Your task to perform on an android device: Open a new Chrome incognito window Image 0: 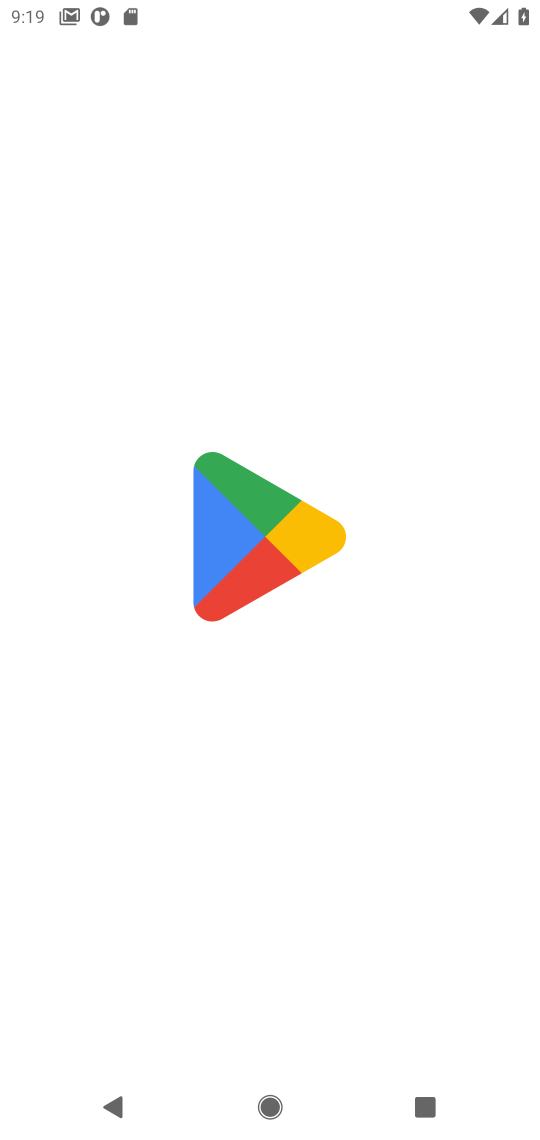
Step 0: press home button
Your task to perform on an android device: Open a new Chrome incognito window Image 1: 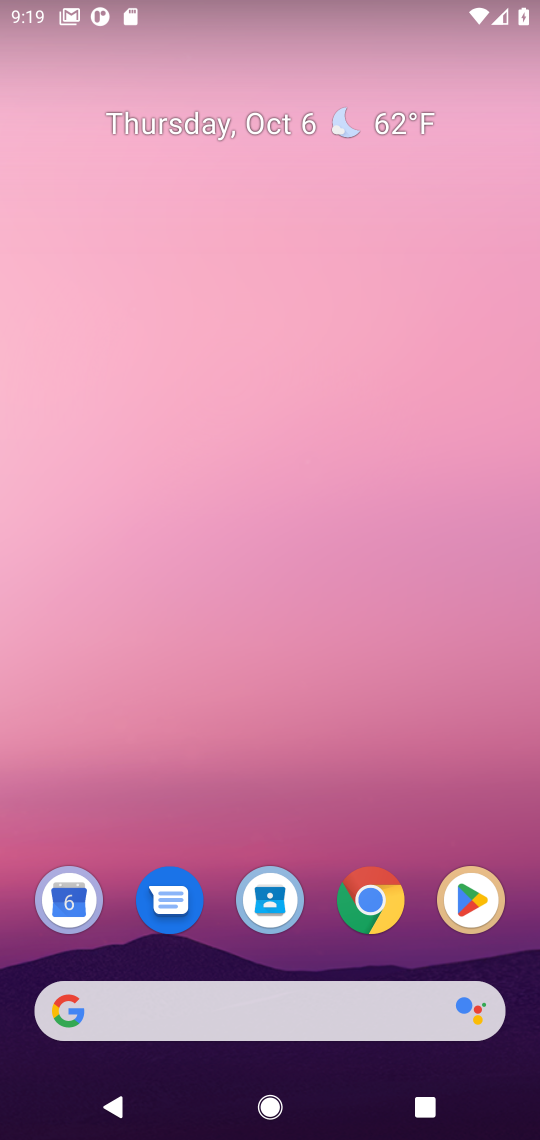
Step 1: drag from (505, 753) to (450, 75)
Your task to perform on an android device: Open a new Chrome incognito window Image 2: 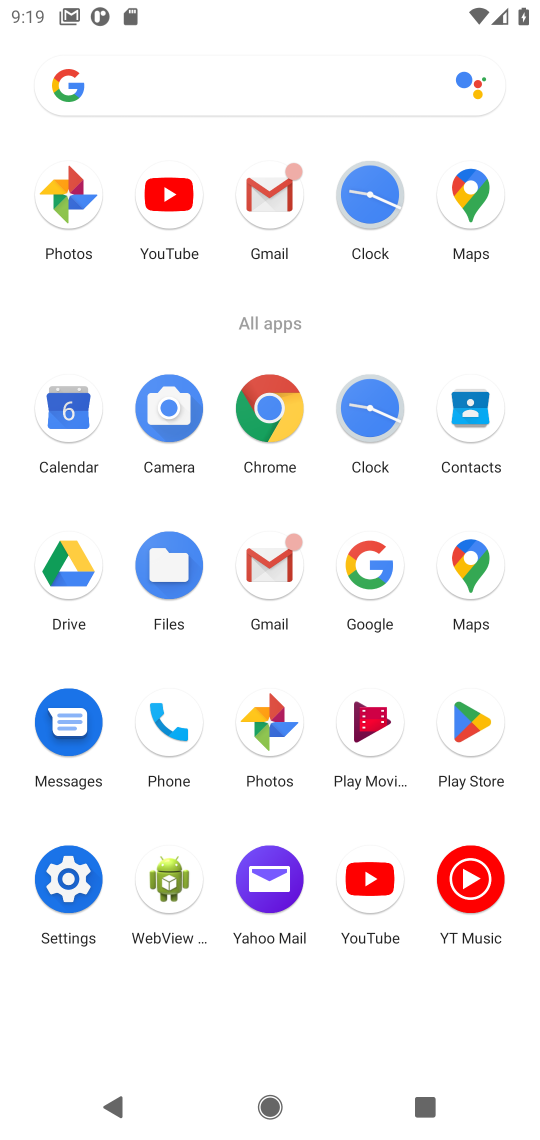
Step 2: click (265, 419)
Your task to perform on an android device: Open a new Chrome incognito window Image 3: 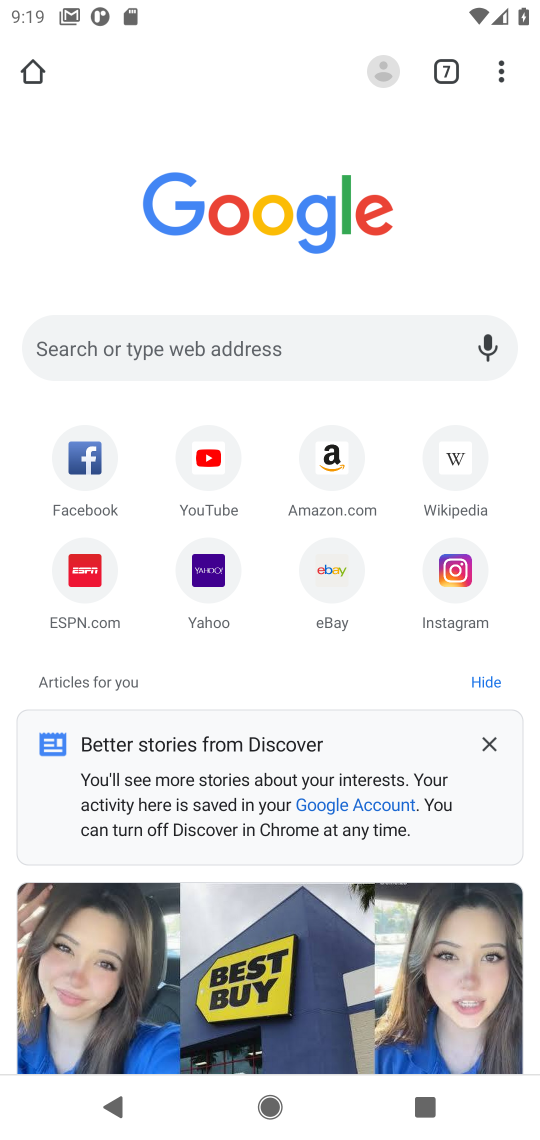
Step 3: click (504, 71)
Your task to perform on an android device: Open a new Chrome incognito window Image 4: 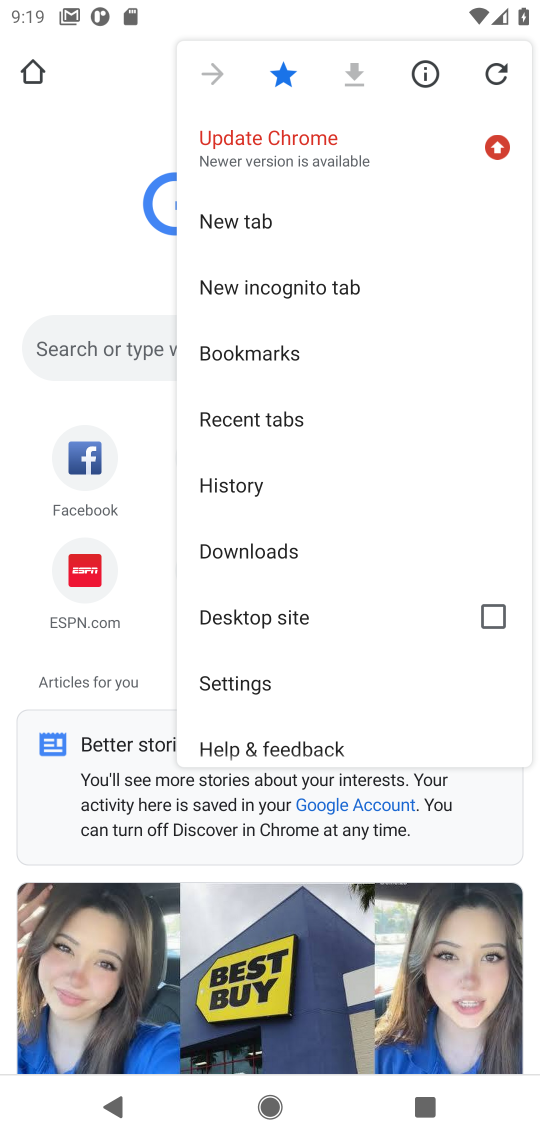
Step 4: click (272, 289)
Your task to perform on an android device: Open a new Chrome incognito window Image 5: 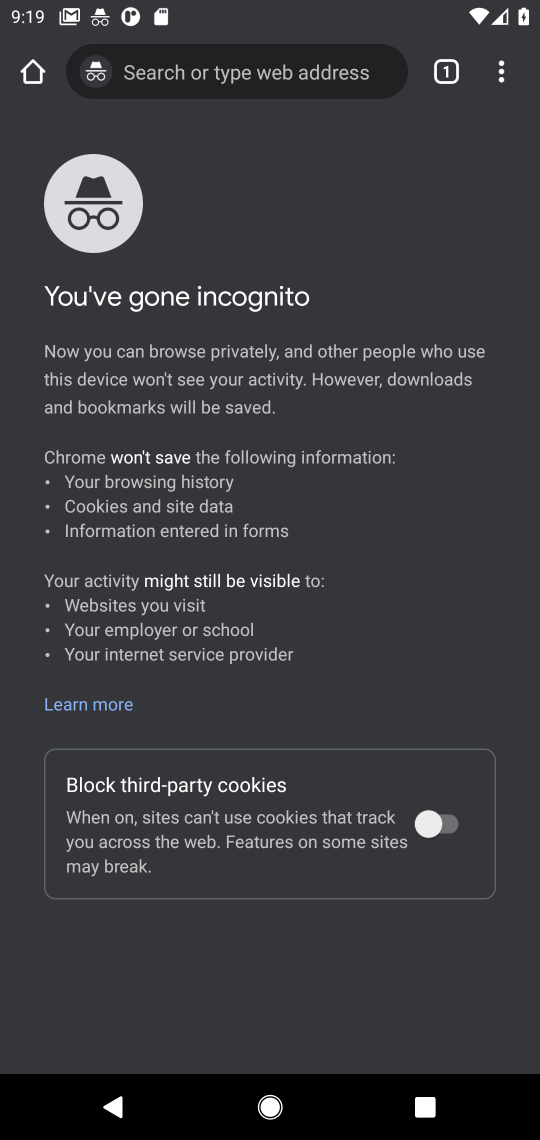
Step 5: task complete